Your task to perform on an android device: Toggle the flashlight Image 0: 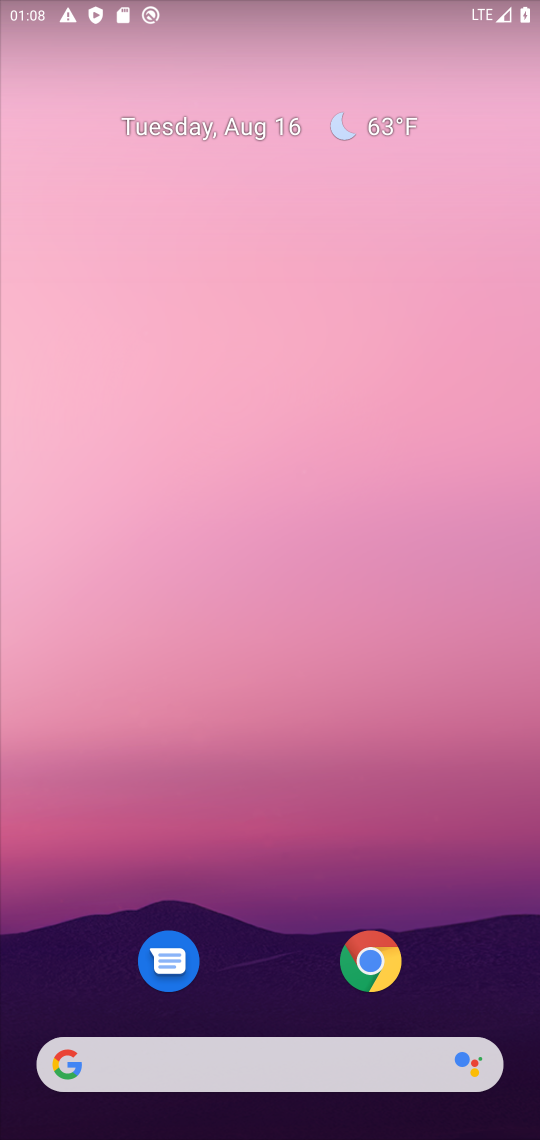
Step 0: click (190, 140)
Your task to perform on an android device: Toggle the flashlight Image 1: 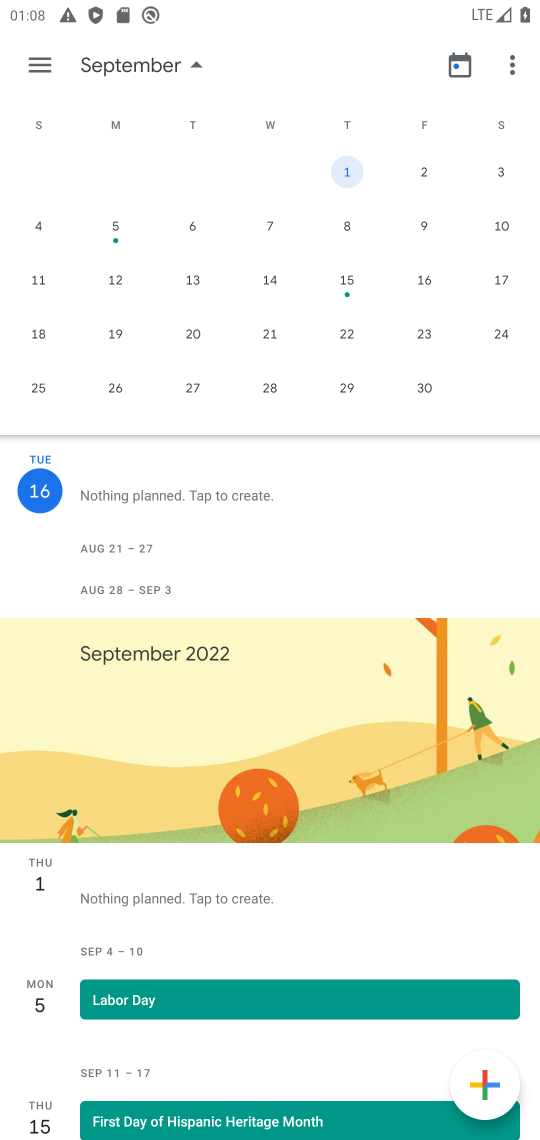
Step 1: task complete